Your task to perform on an android device: Open internet settings Image 0: 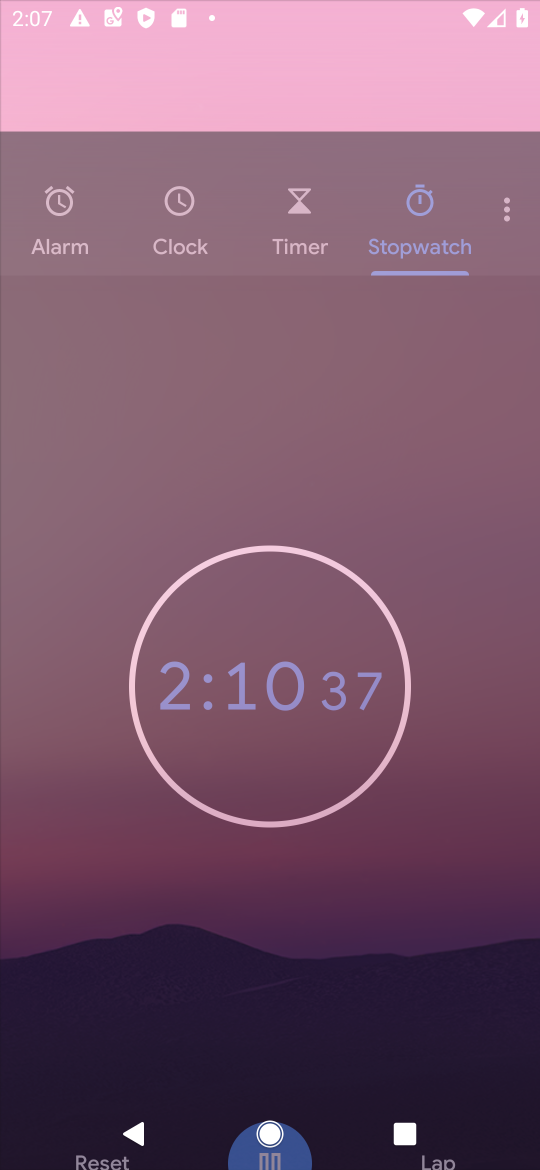
Step 0: press home button
Your task to perform on an android device: Open internet settings Image 1: 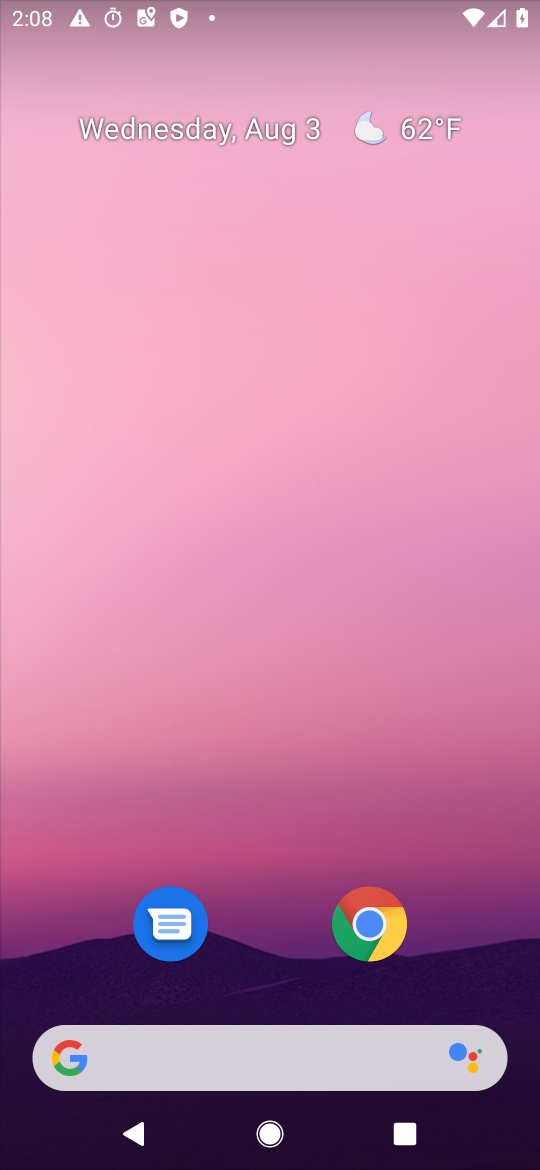
Step 1: drag from (283, 1006) to (249, 113)
Your task to perform on an android device: Open internet settings Image 2: 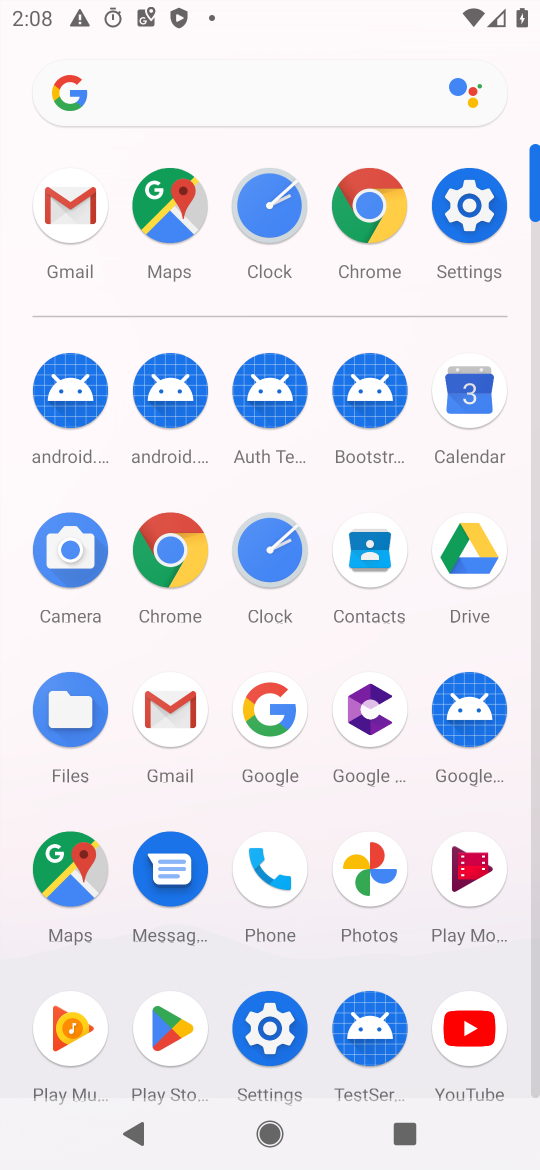
Step 2: click (468, 194)
Your task to perform on an android device: Open internet settings Image 3: 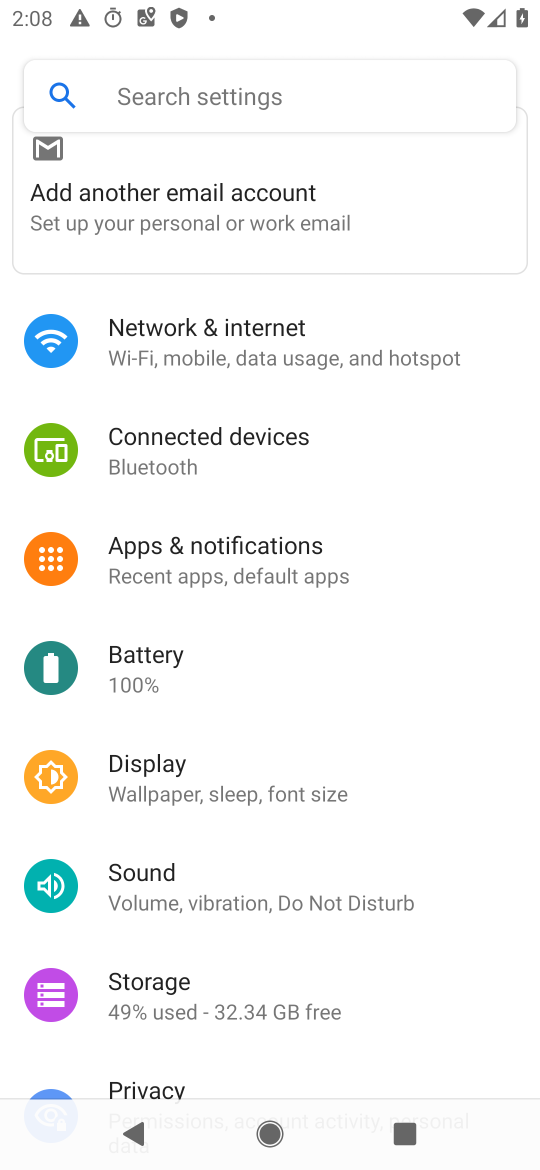
Step 3: click (262, 316)
Your task to perform on an android device: Open internet settings Image 4: 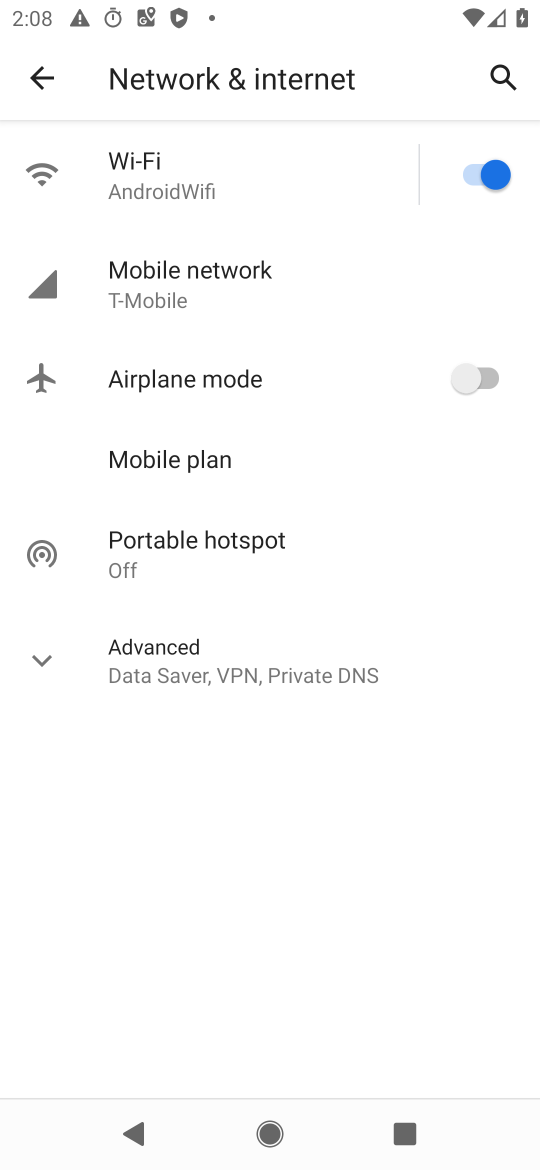
Step 4: click (36, 653)
Your task to perform on an android device: Open internet settings Image 5: 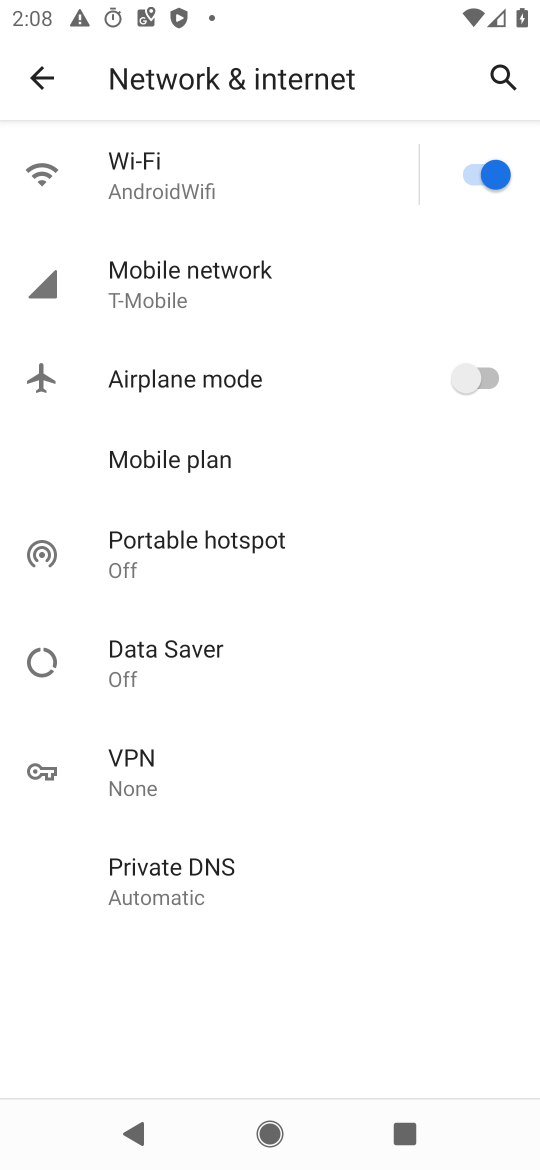
Step 5: task complete